Your task to perform on an android device: turn off priority inbox in the gmail app Image 0: 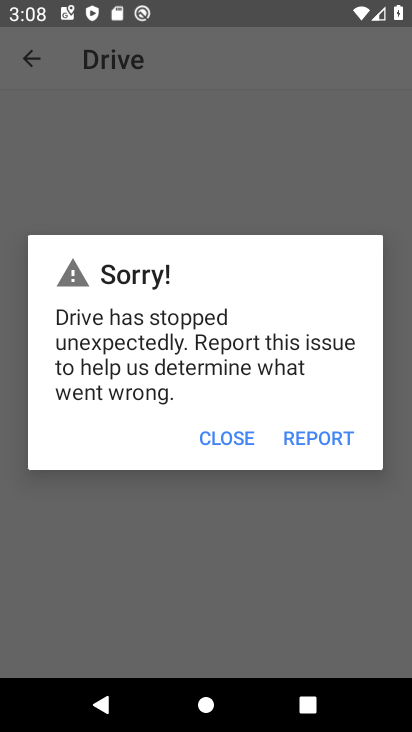
Step 0: press home button
Your task to perform on an android device: turn off priority inbox in the gmail app Image 1: 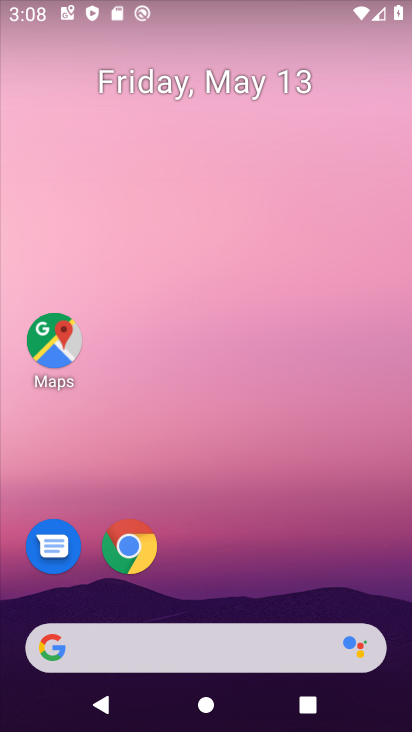
Step 1: drag from (204, 589) to (312, 63)
Your task to perform on an android device: turn off priority inbox in the gmail app Image 2: 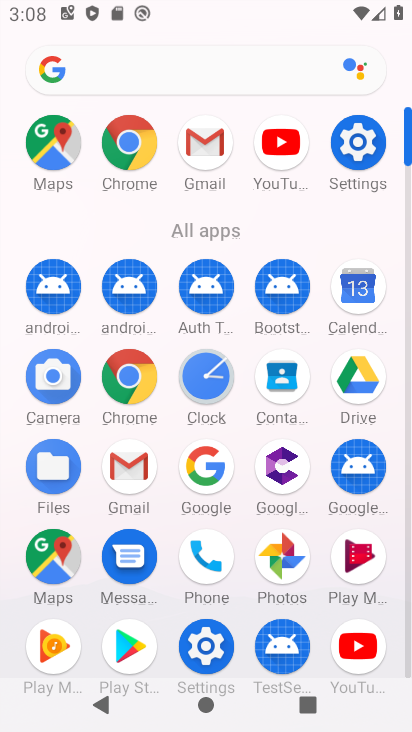
Step 2: click (221, 147)
Your task to perform on an android device: turn off priority inbox in the gmail app Image 3: 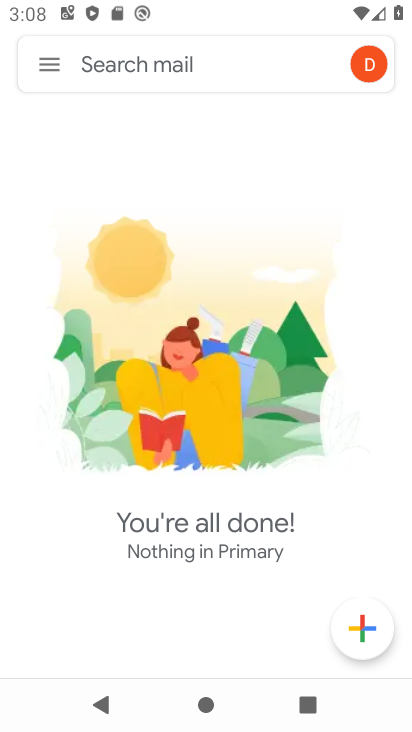
Step 3: click (54, 62)
Your task to perform on an android device: turn off priority inbox in the gmail app Image 4: 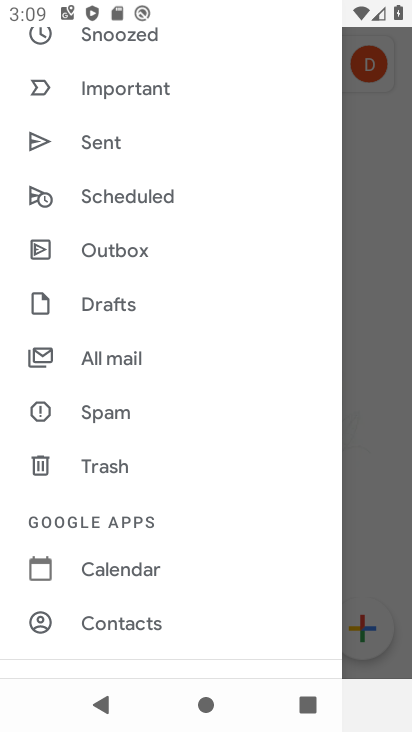
Step 4: drag from (192, 116) to (251, 567)
Your task to perform on an android device: turn off priority inbox in the gmail app Image 5: 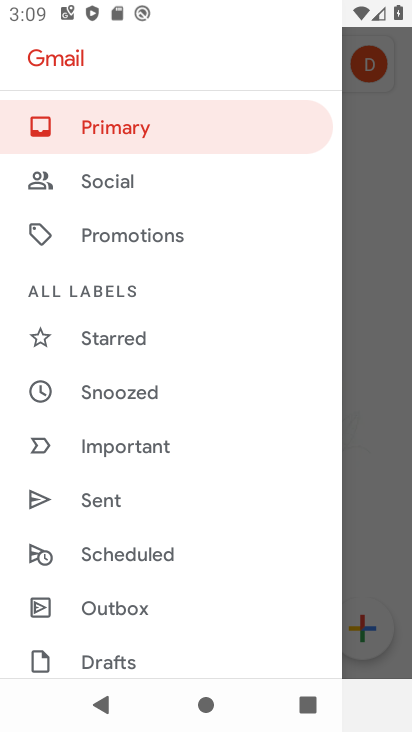
Step 5: drag from (242, 233) to (244, 159)
Your task to perform on an android device: turn off priority inbox in the gmail app Image 6: 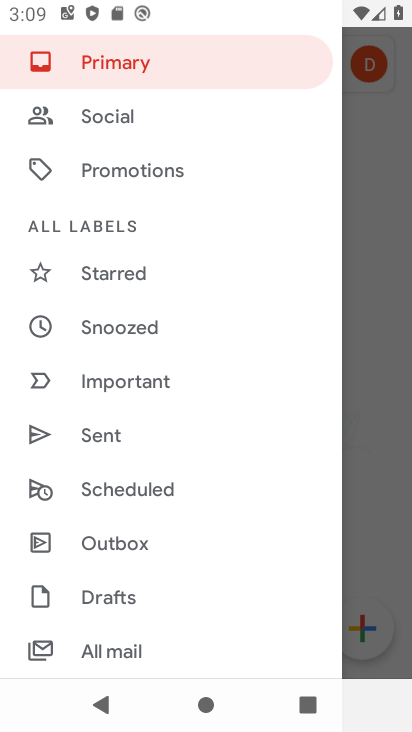
Step 6: drag from (79, 613) to (124, 243)
Your task to perform on an android device: turn off priority inbox in the gmail app Image 7: 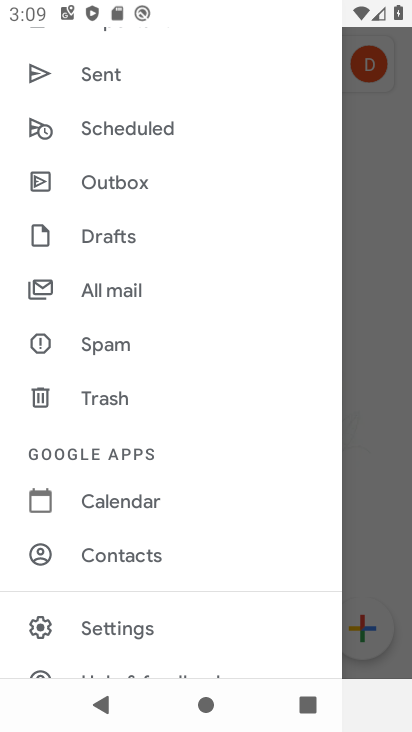
Step 7: click (155, 617)
Your task to perform on an android device: turn off priority inbox in the gmail app Image 8: 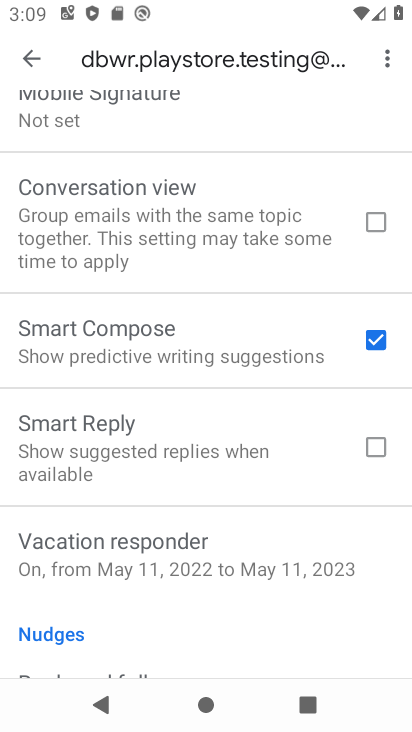
Step 8: drag from (185, 245) to (205, 628)
Your task to perform on an android device: turn off priority inbox in the gmail app Image 9: 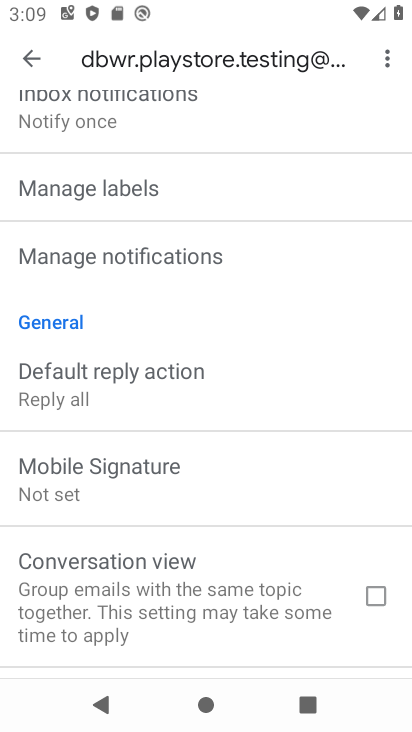
Step 9: drag from (198, 175) to (223, 619)
Your task to perform on an android device: turn off priority inbox in the gmail app Image 10: 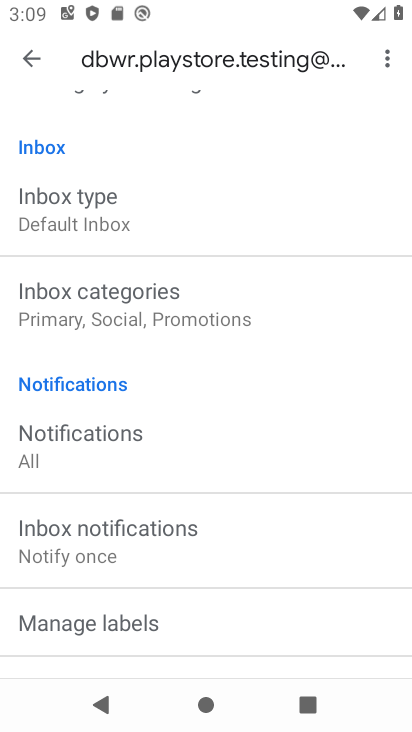
Step 10: click (173, 231)
Your task to perform on an android device: turn off priority inbox in the gmail app Image 11: 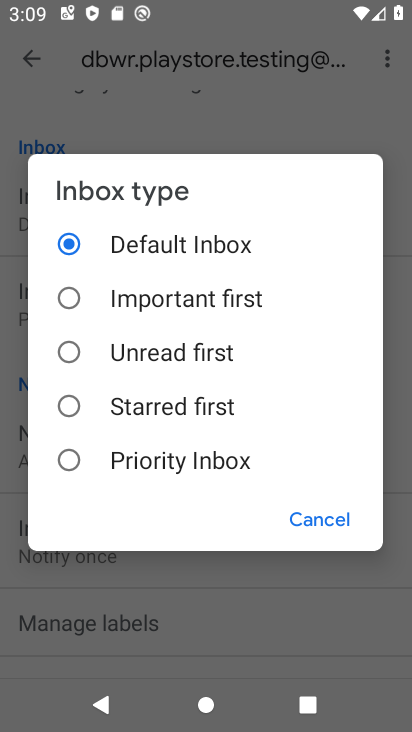
Step 11: click (146, 463)
Your task to perform on an android device: turn off priority inbox in the gmail app Image 12: 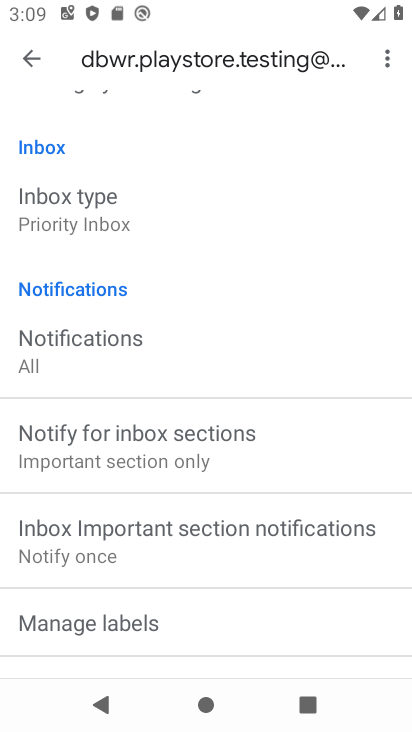
Step 12: click (94, 187)
Your task to perform on an android device: turn off priority inbox in the gmail app Image 13: 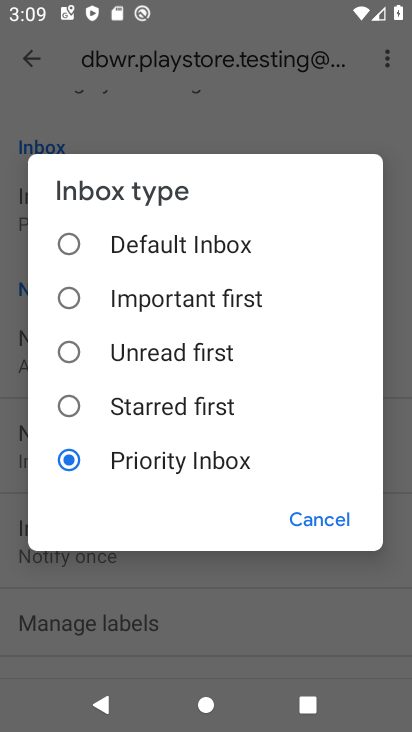
Step 13: click (119, 404)
Your task to perform on an android device: turn off priority inbox in the gmail app Image 14: 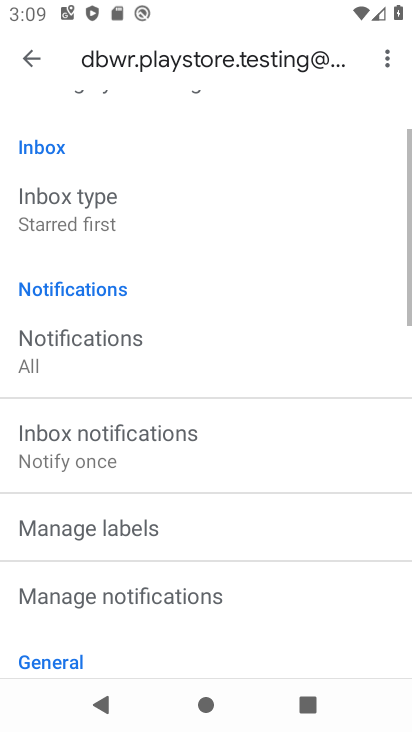
Step 14: task complete